Your task to perform on an android device: see tabs open on other devices in the chrome app Image 0: 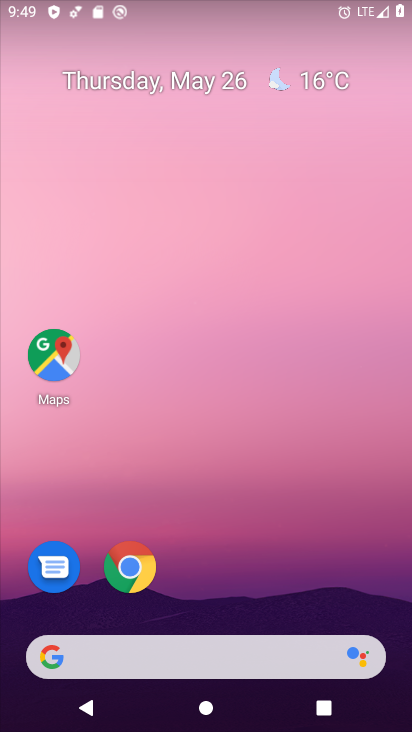
Step 0: click (117, 565)
Your task to perform on an android device: see tabs open on other devices in the chrome app Image 1: 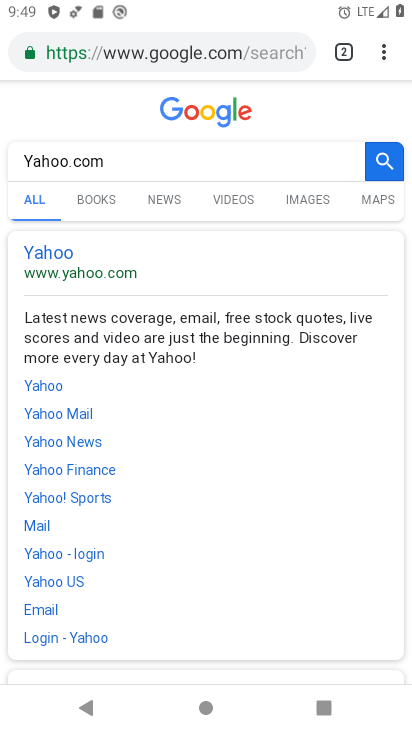
Step 1: click (379, 45)
Your task to perform on an android device: see tabs open on other devices in the chrome app Image 2: 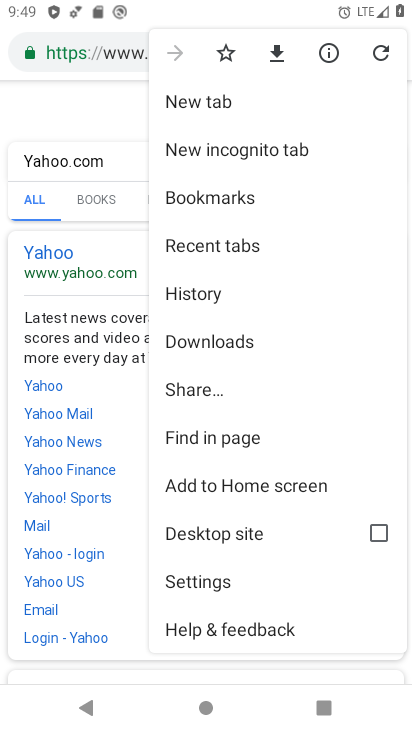
Step 2: click (197, 246)
Your task to perform on an android device: see tabs open on other devices in the chrome app Image 3: 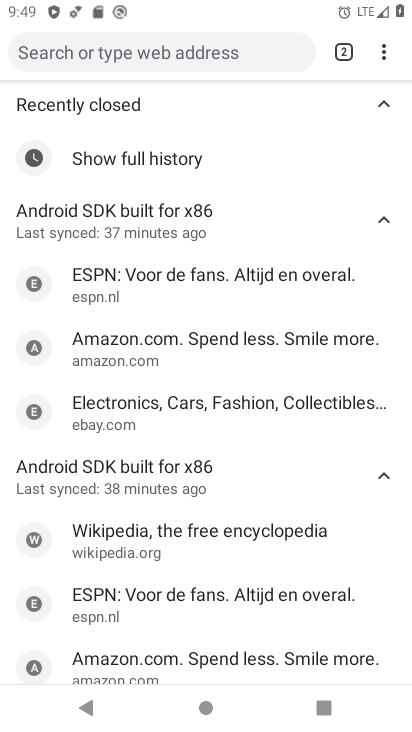
Step 3: task complete